Your task to perform on an android device: stop showing notifications on the lock screen Image 0: 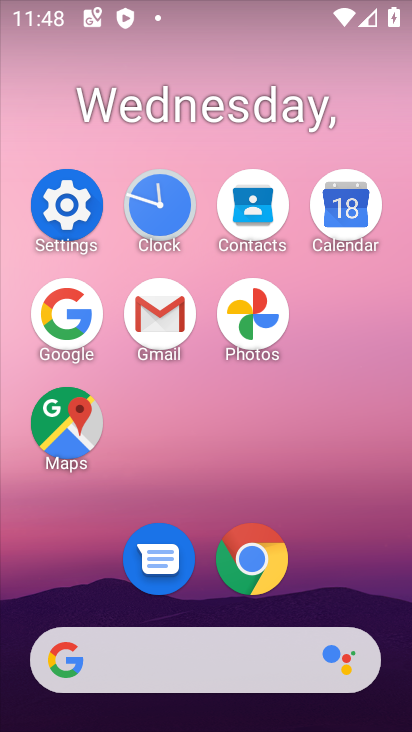
Step 0: click (71, 236)
Your task to perform on an android device: stop showing notifications on the lock screen Image 1: 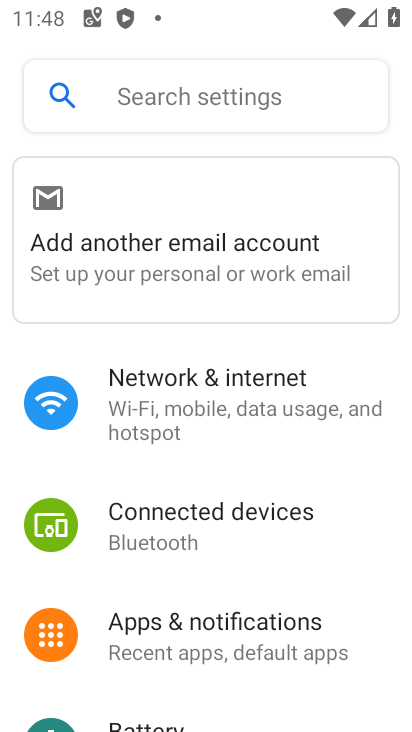
Step 1: click (242, 610)
Your task to perform on an android device: stop showing notifications on the lock screen Image 2: 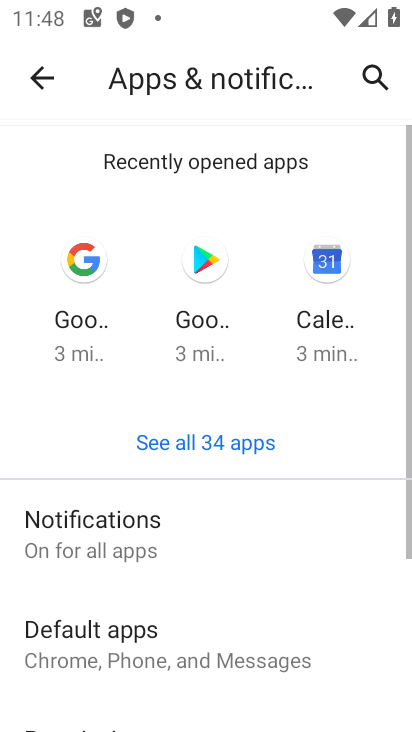
Step 2: click (198, 553)
Your task to perform on an android device: stop showing notifications on the lock screen Image 3: 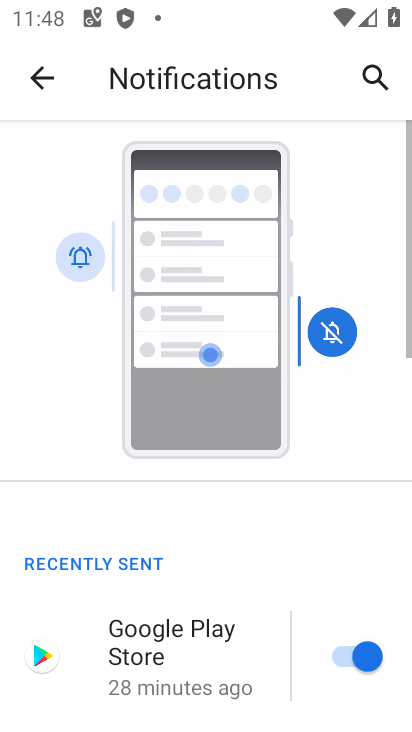
Step 3: drag from (226, 603) to (285, 284)
Your task to perform on an android device: stop showing notifications on the lock screen Image 4: 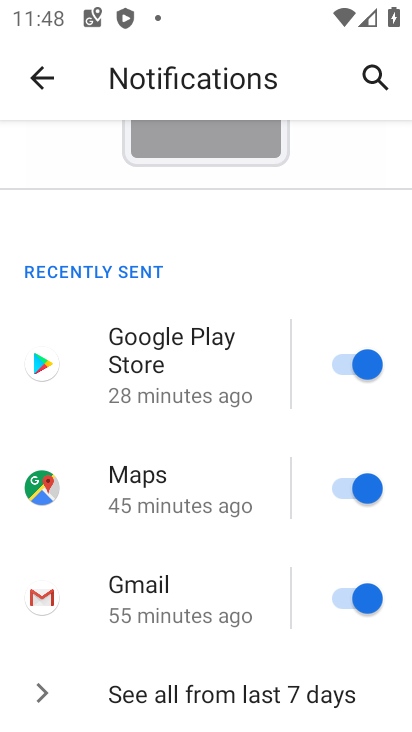
Step 4: drag from (220, 633) to (261, 223)
Your task to perform on an android device: stop showing notifications on the lock screen Image 5: 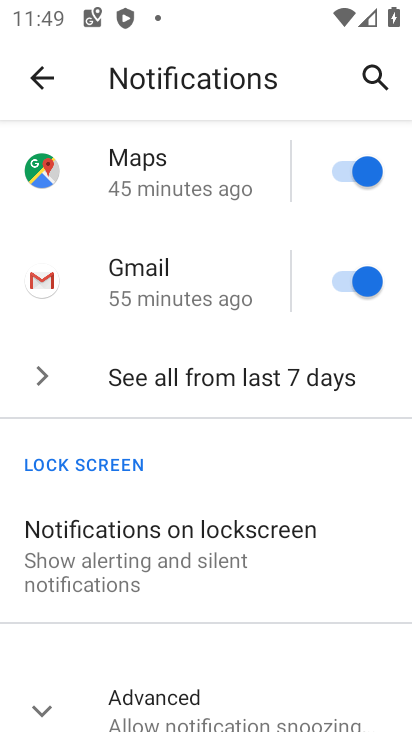
Step 5: click (254, 558)
Your task to perform on an android device: stop showing notifications on the lock screen Image 6: 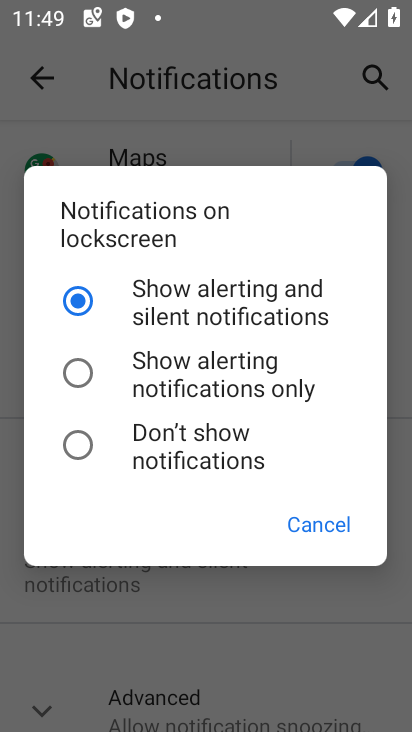
Step 6: click (171, 431)
Your task to perform on an android device: stop showing notifications on the lock screen Image 7: 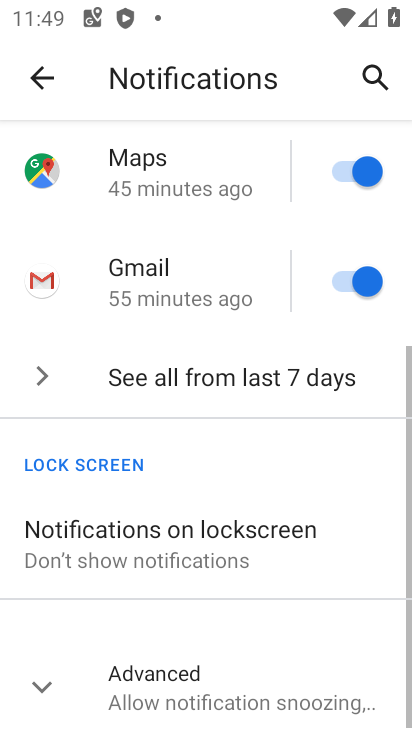
Step 7: task complete